Your task to perform on an android device: toggle wifi Image 0: 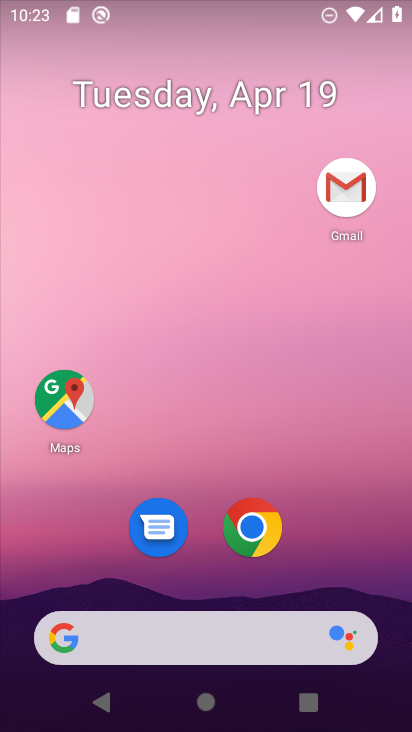
Step 0: drag from (334, 517) to (338, 127)
Your task to perform on an android device: toggle wifi Image 1: 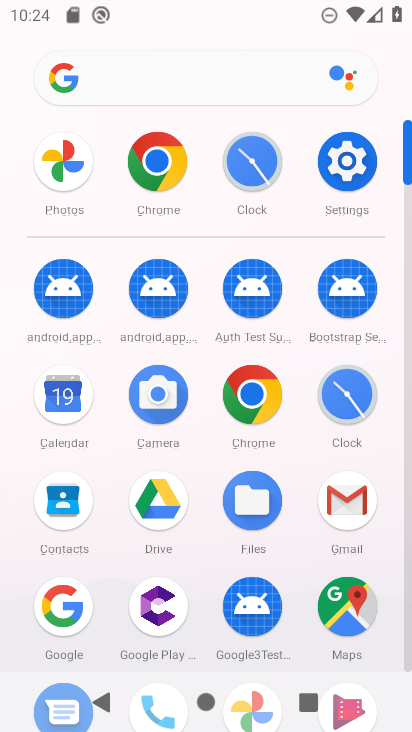
Step 1: click (334, 179)
Your task to perform on an android device: toggle wifi Image 2: 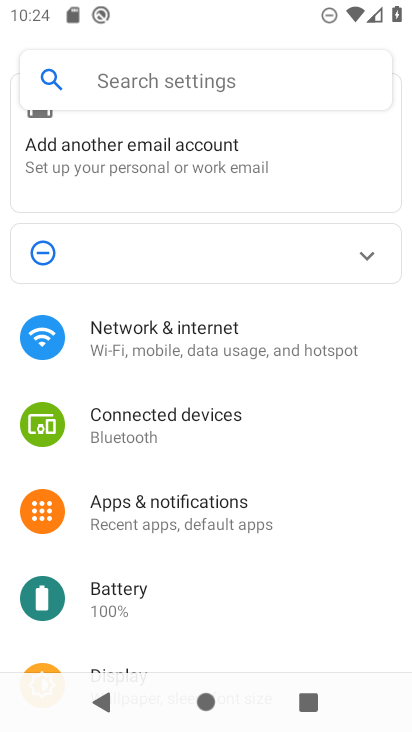
Step 2: drag from (288, 547) to (289, 256)
Your task to perform on an android device: toggle wifi Image 3: 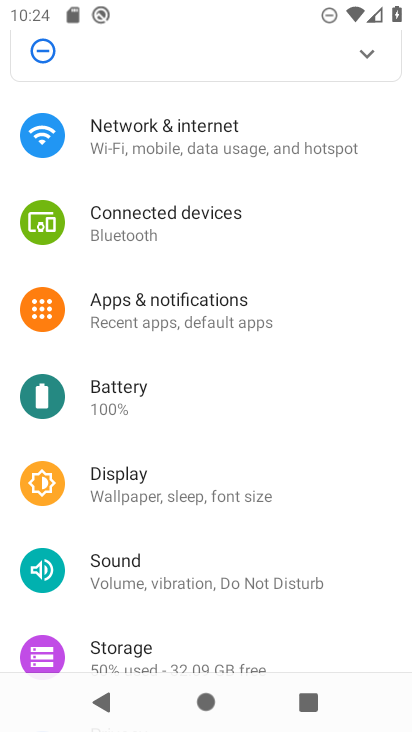
Step 3: drag from (315, 608) to (315, 347)
Your task to perform on an android device: toggle wifi Image 4: 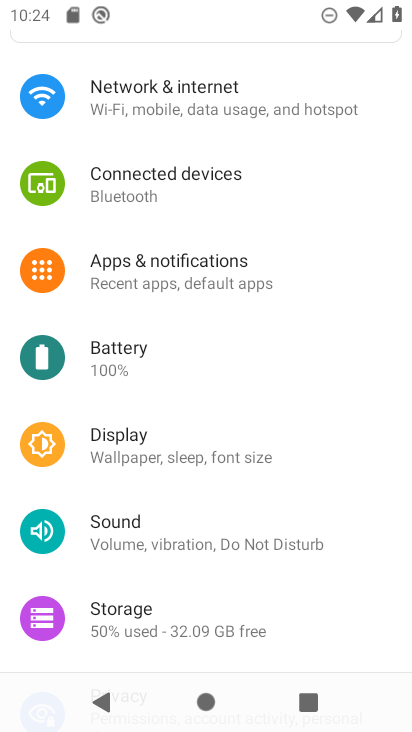
Step 4: drag from (313, 204) to (329, 587)
Your task to perform on an android device: toggle wifi Image 5: 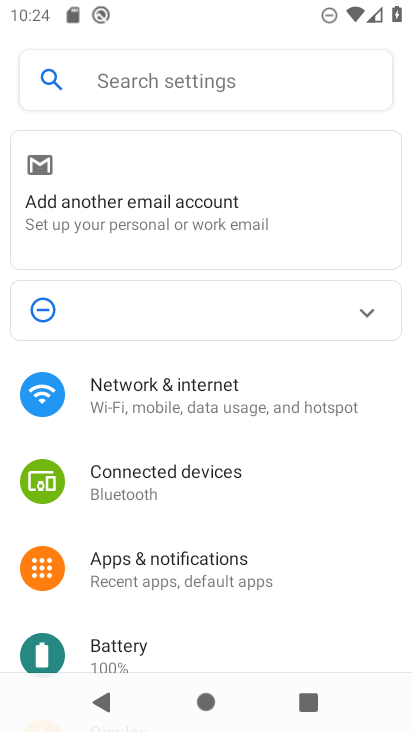
Step 5: click (246, 400)
Your task to perform on an android device: toggle wifi Image 6: 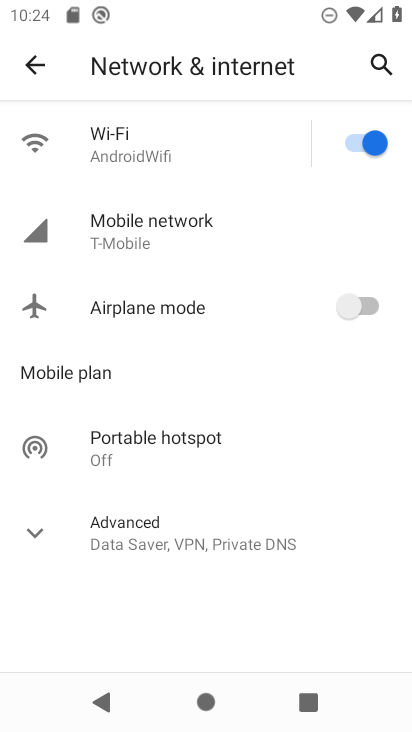
Step 6: click (356, 142)
Your task to perform on an android device: toggle wifi Image 7: 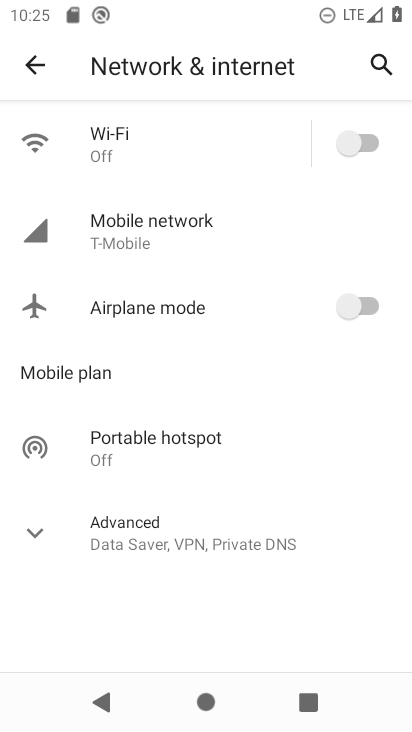
Step 7: task complete